Your task to perform on an android device: turn off smart reply in the gmail app Image 0: 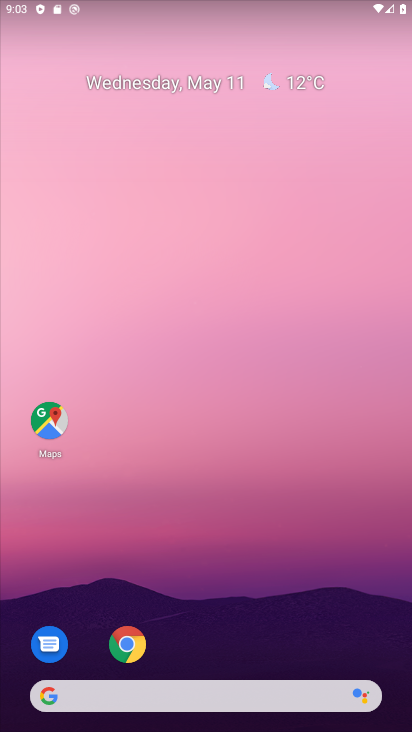
Step 0: drag from (228, 591) to (262, 26)
Your task to perform on an android device: turn off smart reply in the gmail app Image 1: 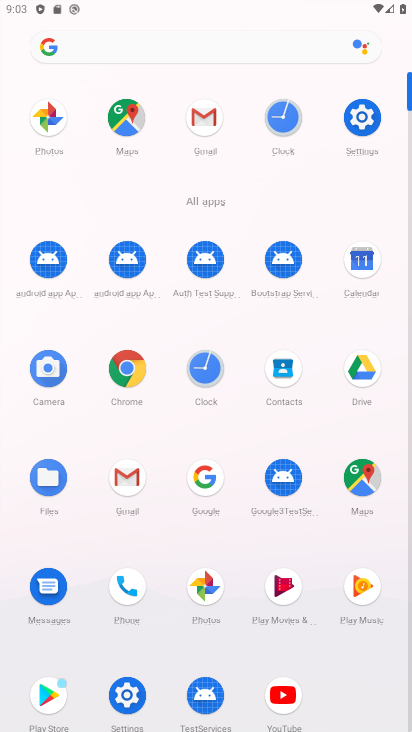
Step 1: click (208, 137)
Your task to perform on an android device: turn off smart reply in the gmail app Image 2: 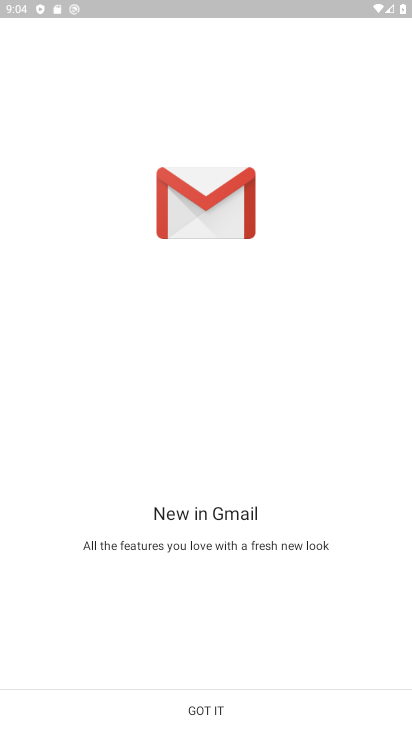
Step 2: click (225, 714)
Your task to perform on an android device: turn off smart reply in the gmail app Image 3: 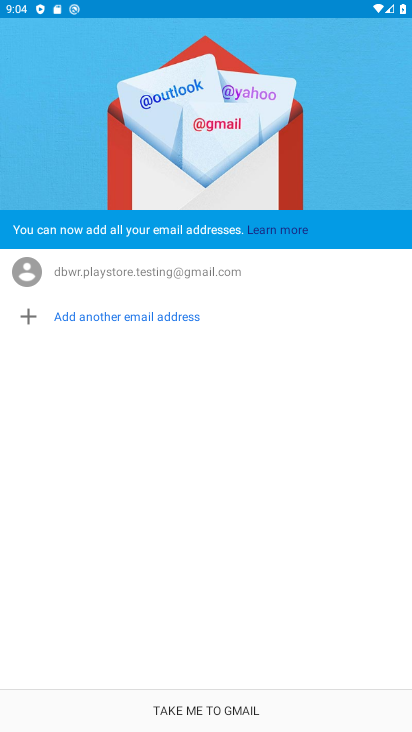
Step 3: click (225, 714)
Your task to perform on an android device: turn off smart reply in the gmail app Image 4: 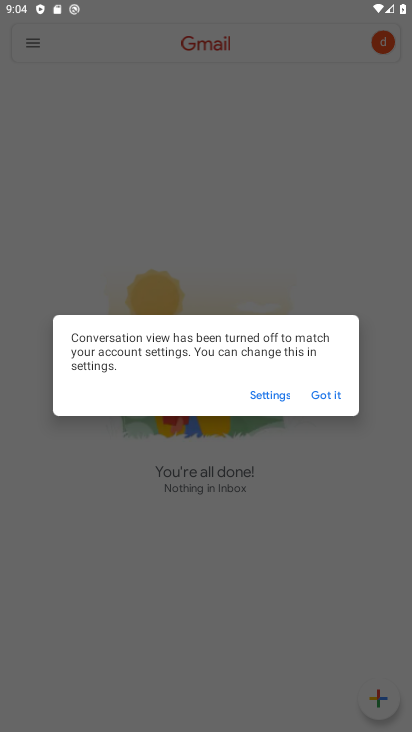
Step 4: click (334, 397)
Your task to perform on an android device: turn off smart reply in the gmail app Image 5: 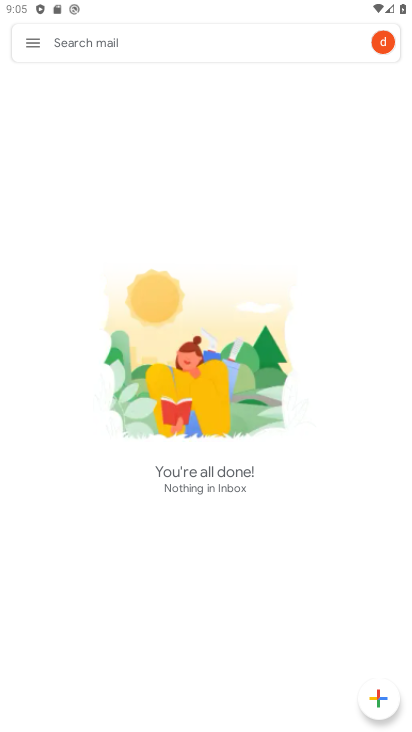
Step 5: click (40, 39)
Your task to perform on an android device: turn off smart reply in the gmail app Image 6: 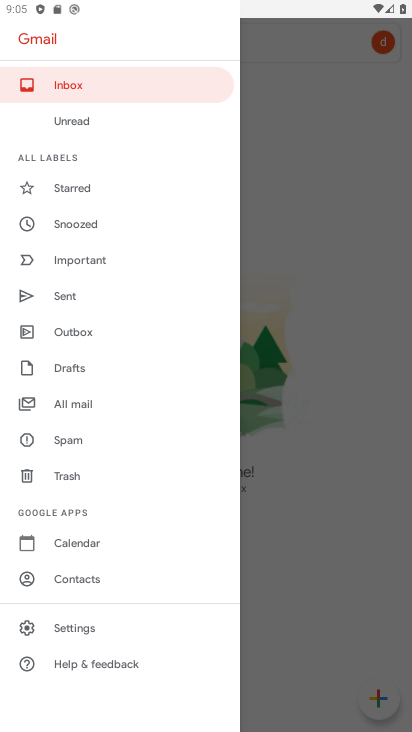
Step 6: click (89, 626)
Your task to perform on an android device: turn off smart reply in the gmail app Image 7: 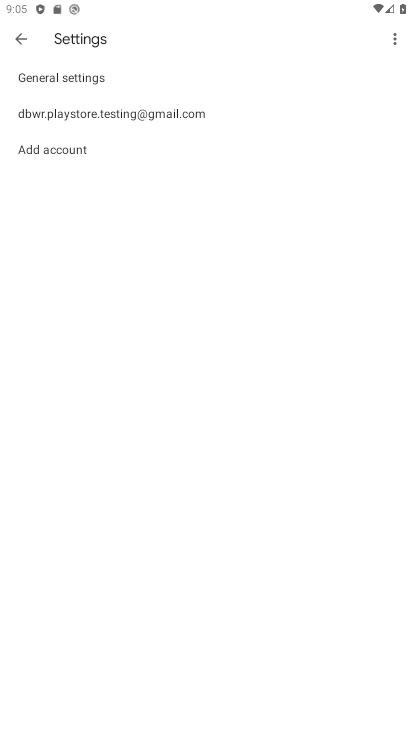
Step 7: click (82, 117)
Your task to perform on an android device: turn off smart reply in the gmail app Image 8: 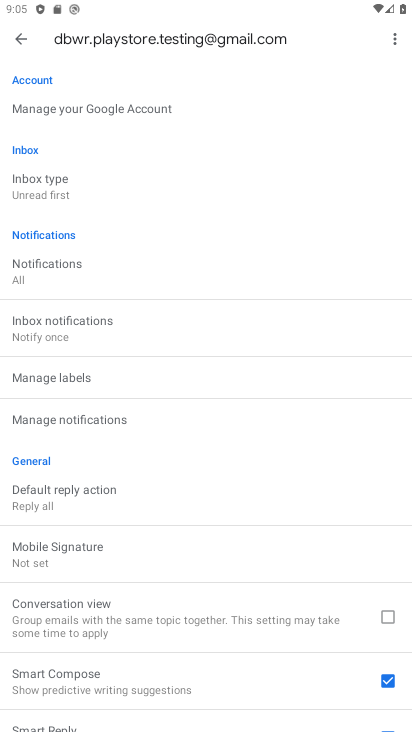
Step 8: drag from (180, 540) to (203, 379)
Your task to perform on an android device: turn off smart reply in the gmail app Image 9: 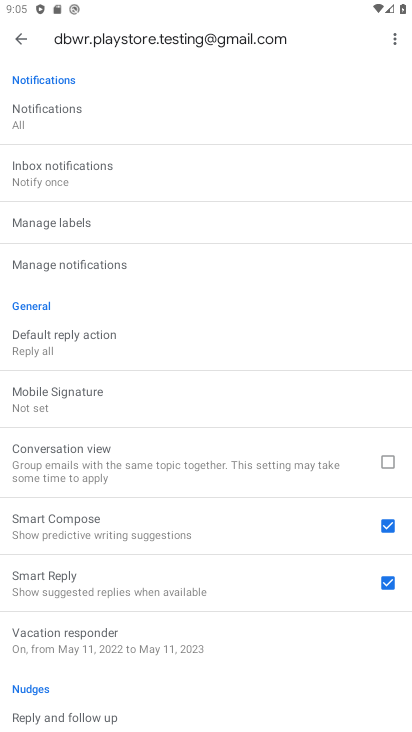
Step 9: click (387, 581)
Your task to perform on an android device: turn off smart reply in the gmail app Image 10: 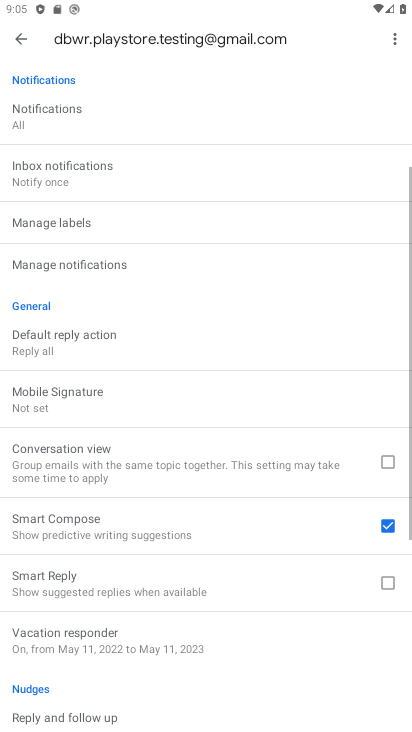
Step 10: task complete